Your task to perform on an android device: turn on notifications settings in the gmail app Image 0: 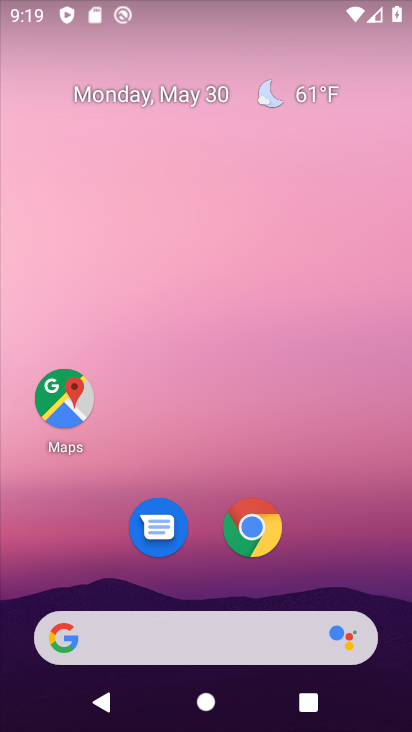
Step 0: drag from (317, 578) to (288, 13)
Your task to perform on an android device: turn on notifications settings in the gmail app Image 1: 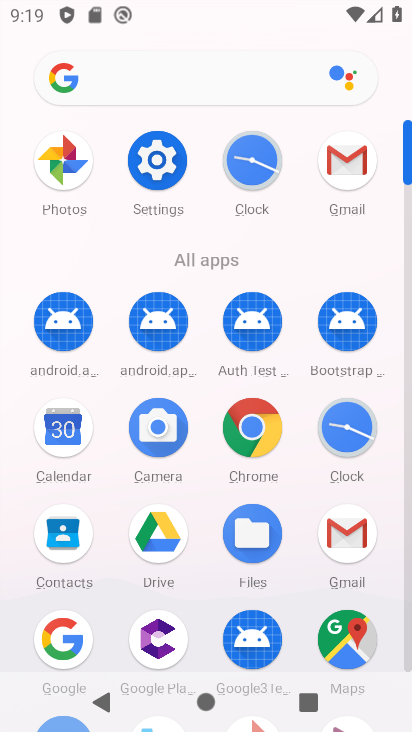
Step 1: click (347, 163)
Your task to perform on an android device: turn on notifications settings in the gmail app Image 2: 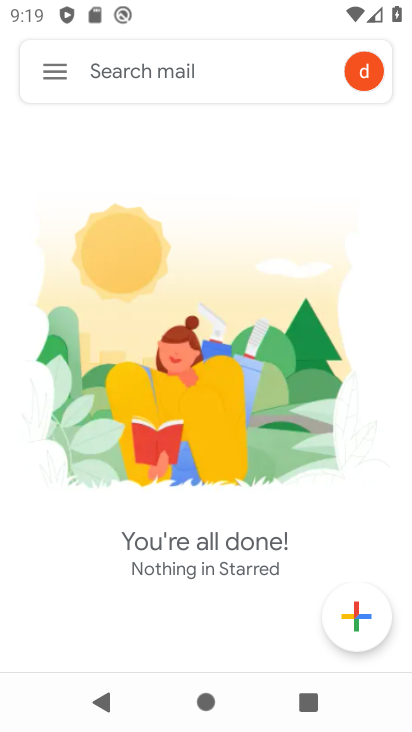
Step 2: click (49, 62)
Your task to perform on an android device: turn on notifications settings in the gmail app Image 3: 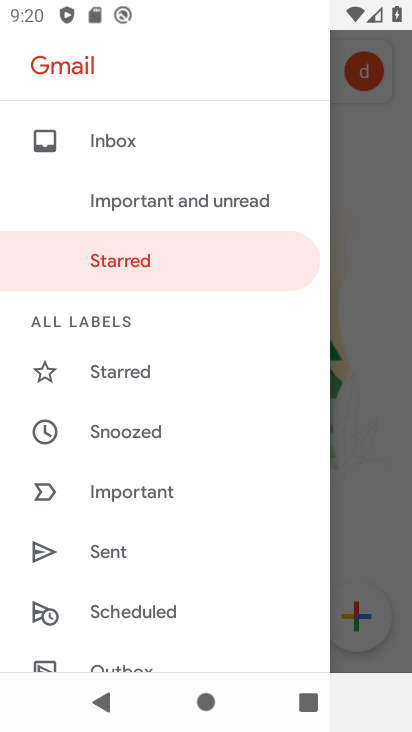
Step 3: drag from (148, 595) to (161, 192)
Your task to perform on an android device: turn on notifications settings in the gmail app Image 4: 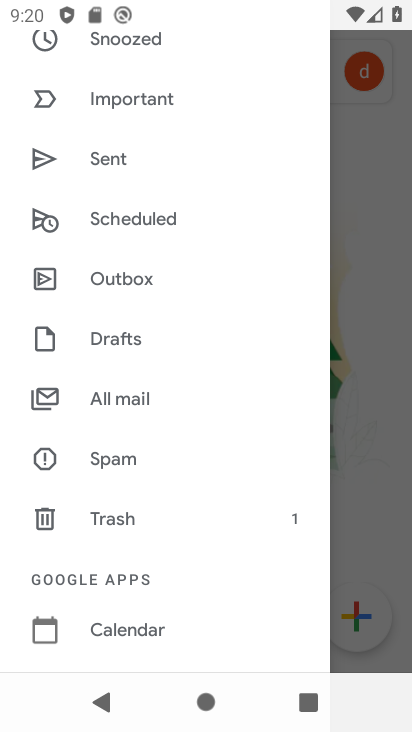
Step 4: drag from (169, 631) to (210, 187)
Your task to perform on an android device: turn on notifications settings in the gmail app Image 5: 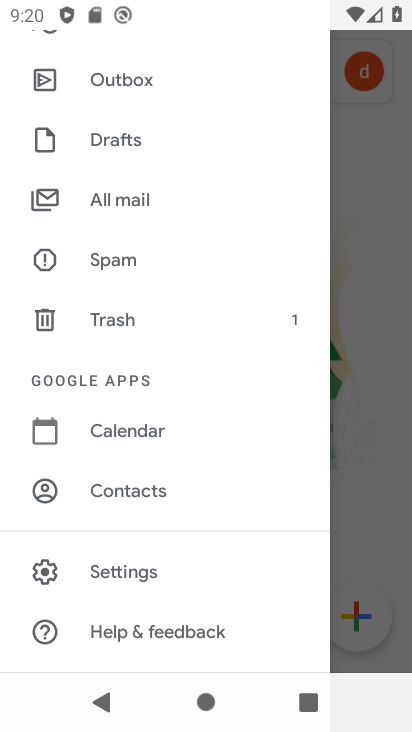
Step 5: click (143, 582)
Your task to perform on an android device: turn on notifications settings in the gmail app Image 6: 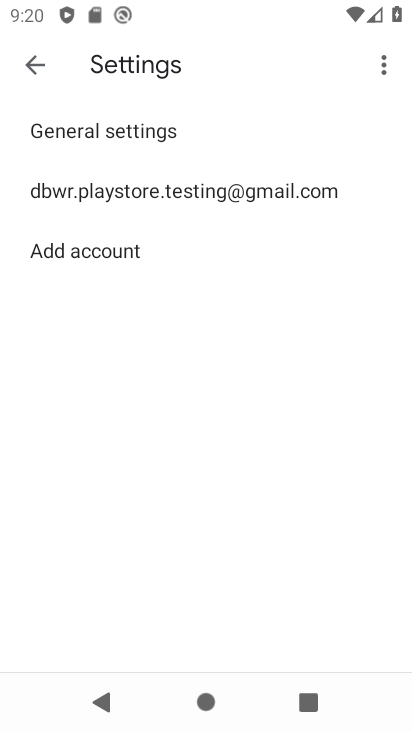
Step 6: click (237, 199)
Your task to perform on an android device: turn on notifications settings in the gmail app Image 7: 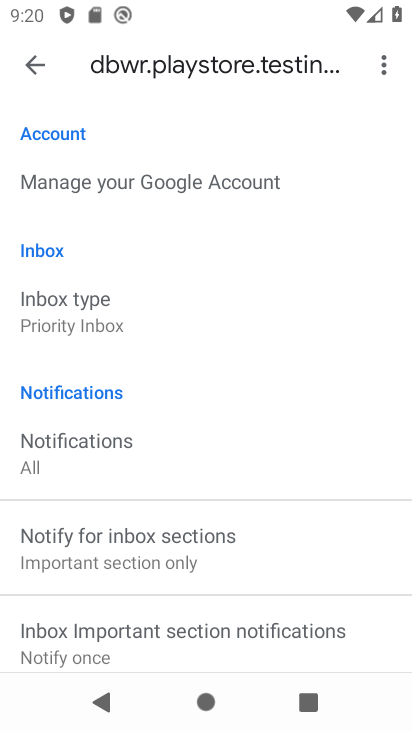
Step 7: drag from (99, 564) to (117, 300)
Your task to perform on an android device: turn on notifications settings in the gmail app Image 8: 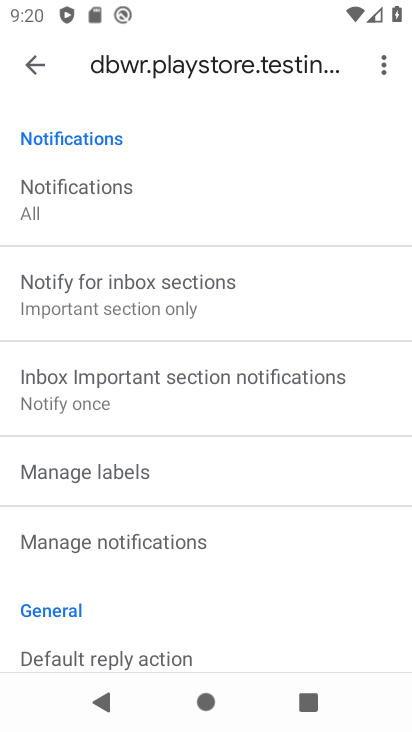
Step 8: click (125, 549)
Your task to perform on an android device: turn on notifications settings in the gmail app Image 9: 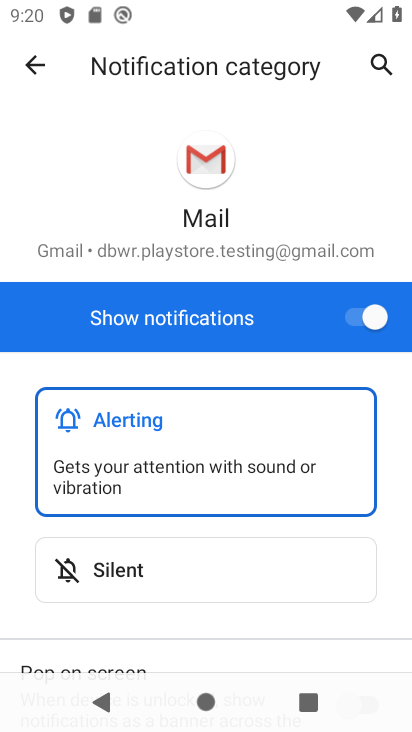
Step 9: task complete